Your task to perform on an android device: Check the weather Image 0: 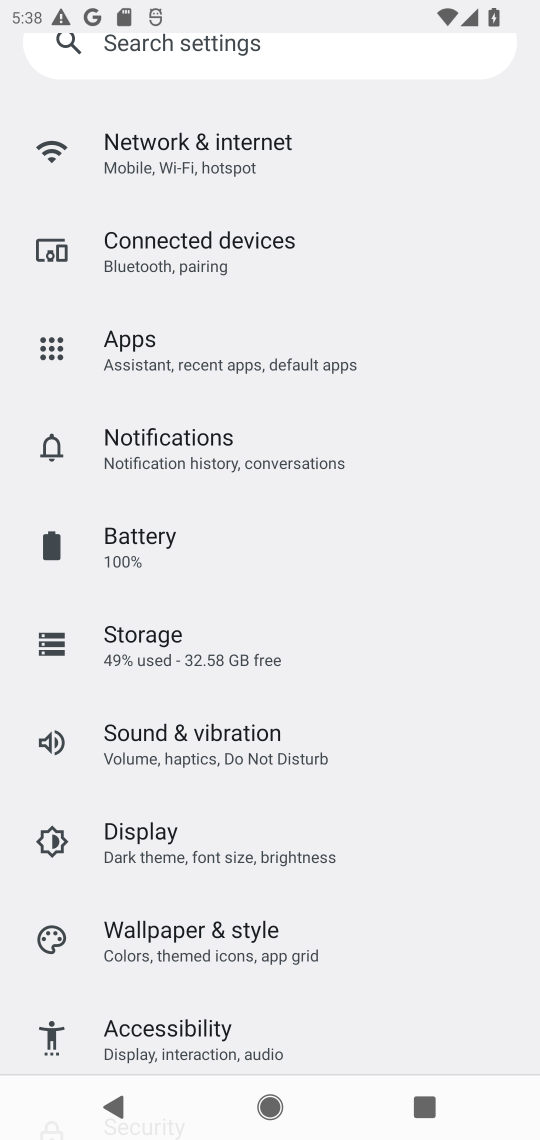
Step 0: press home button
Your task to perform on an android device: Check the weather Image 1: 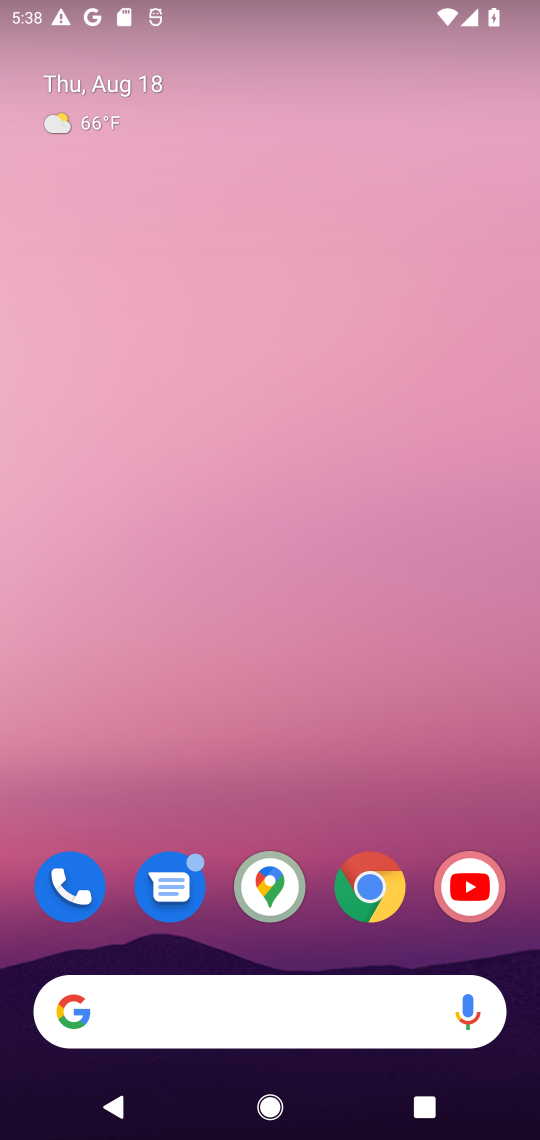
Step 1: drag from (303, 815) to (247, 260)
Your task to perform on an android device: Check the weather Image 2: 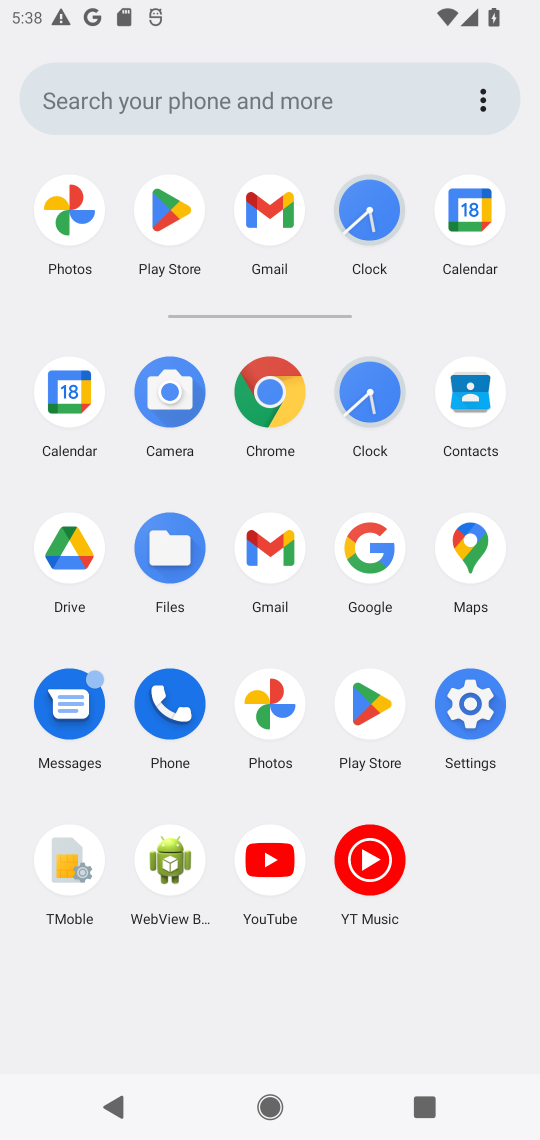
Step 2: click (362, 554)
Your task to perform on an android device: Check the weather Image 3: 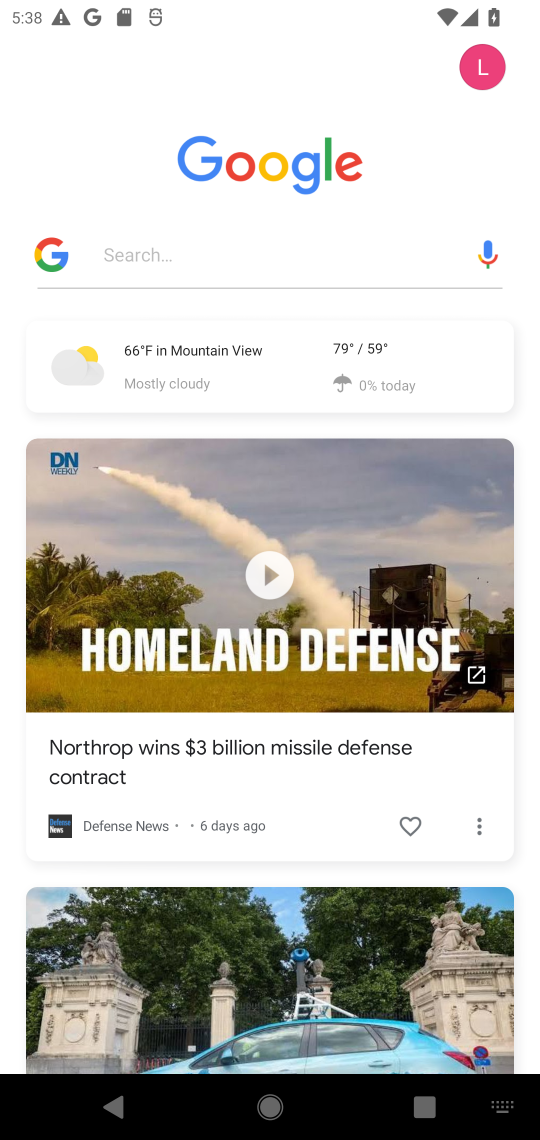
Step 3: type "Check the weather"
Your task to perform on an android device: Check the weather Image 4: 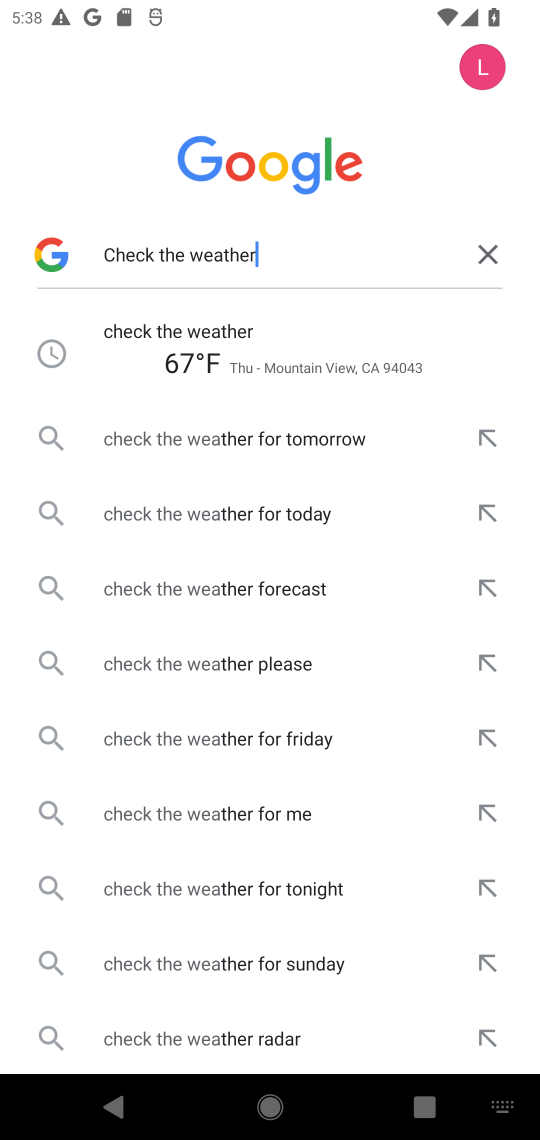
Step 4: task complete